Your task to perform on an android device: star an email in the gmail app Image 0: 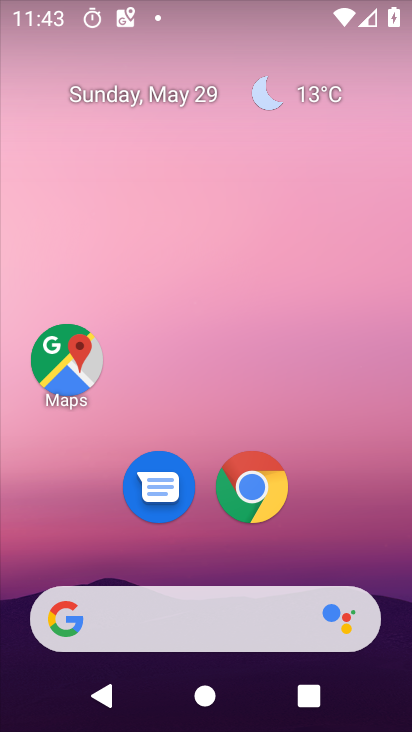
Step 0: drag from (397, 641) to (278, 64)
Your task to perform on an android device: star an email in the gmail app Image 1: 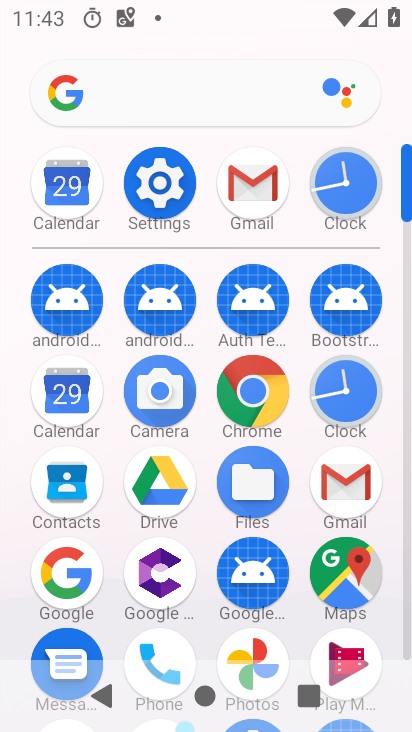
Step 1: click (335, 486)
Your task to perform on an android device: star an email in the gmail app Image 2: 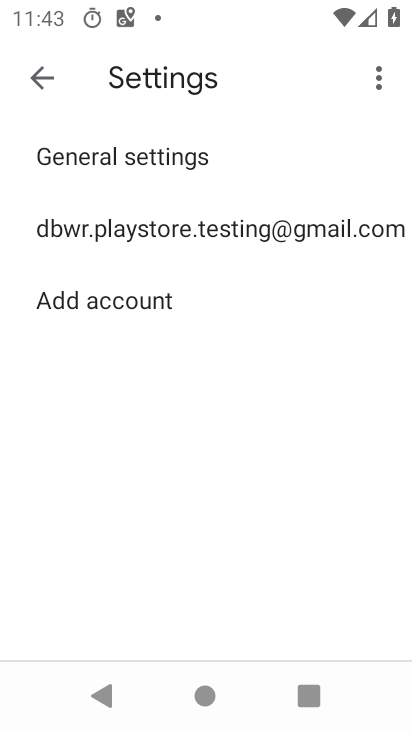
Step 2: click (26, 66)
Your task to perform on an android device: star an email in the gmail app Image 3: 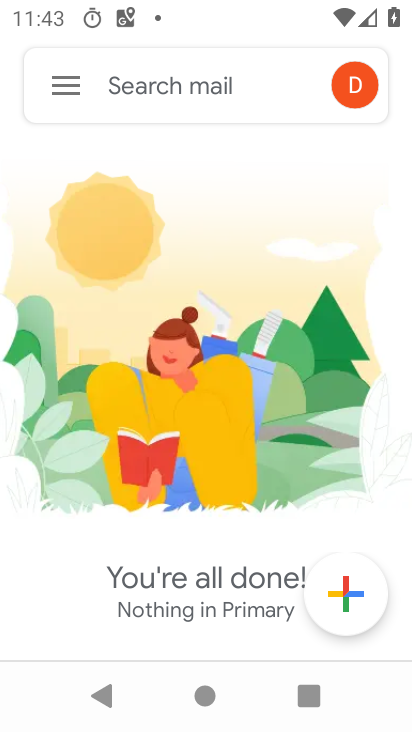
Step 3: click (41, 79)
Your task to perform on an android device: star an email in the gmail app Image 4: 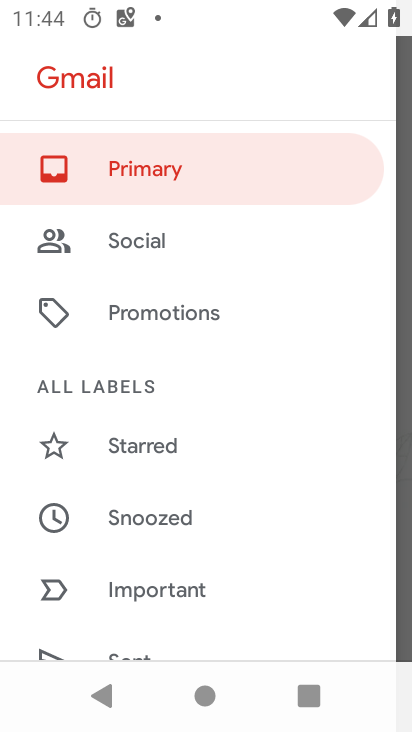
Step 4: click (105, 164)
Your task to perform on an android device: star an email in the gmail app Image 5: 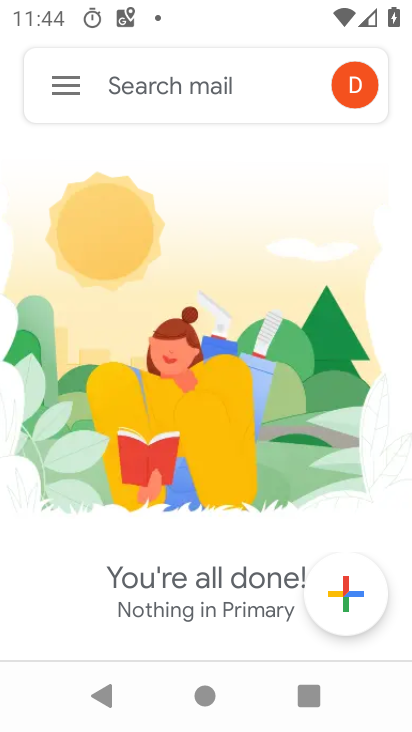
Step 5: task complete